Your task to perform on an android device: Check the weather Image 0: 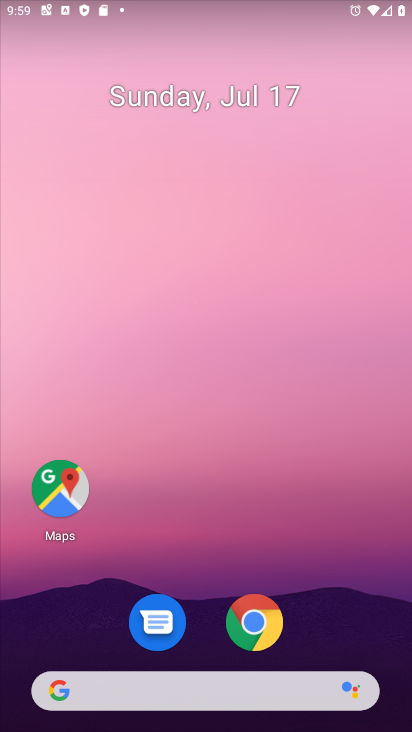
Step 0: drag from (221, 546) to (203, 19)
Your task to perform on an android device: Check the weather Image 1: 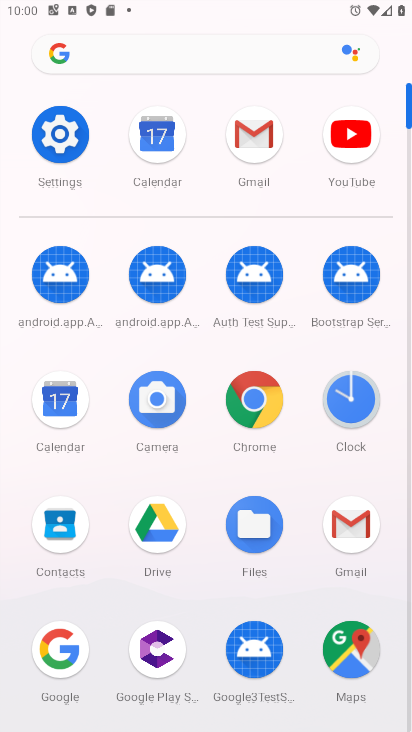
Step 1: click (239, 50)
Your task to perform on an android device: Check the weather Image 2: 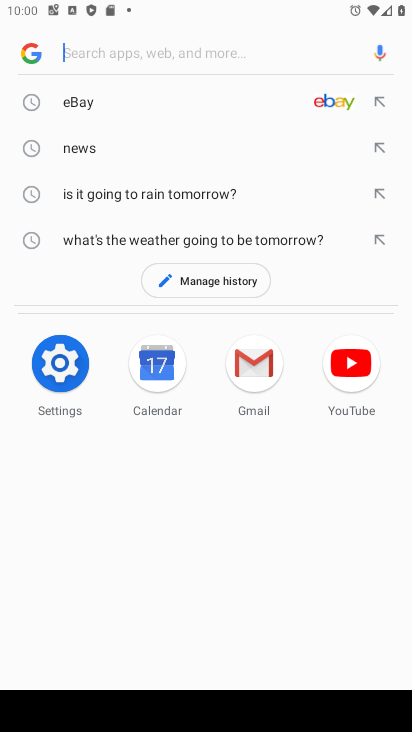
Step 2: type "check the weather"
Your task to perform on an android device: Check the weather Image 3: 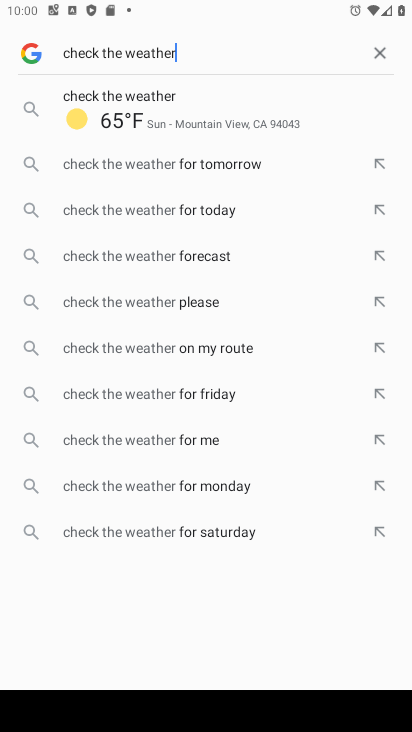
Step 3: click (217, 97)
Your task to perform on an android device: Check the weather Image 4: 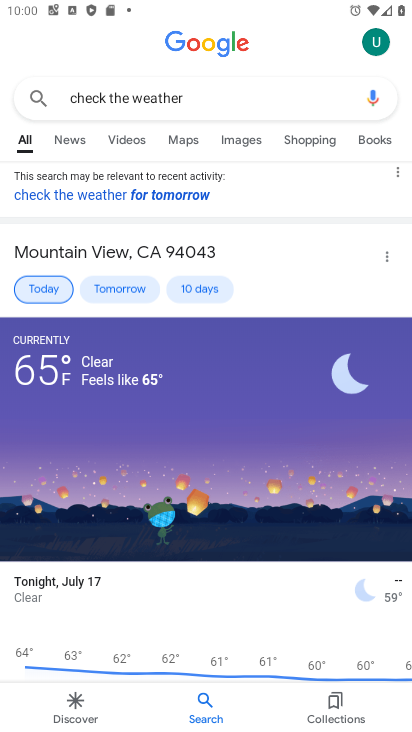
Step 4: task complete